Your task to perform on an android device: Open the web browser Image 0: 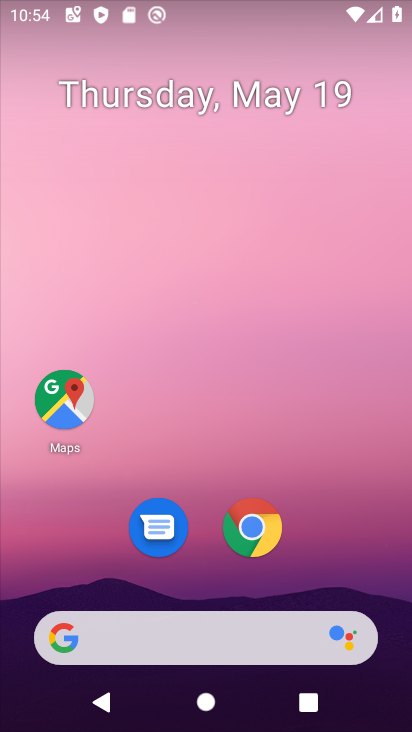
Step 0: drag from (212, 598) to (286, 95)
Your task to perform on an android device: Open the web browser Image 1: 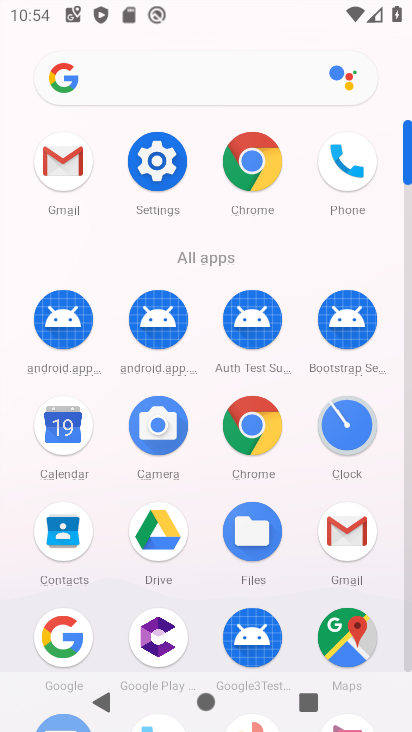
Step 1: click (262, 167)
Your task to perform on an android device: Open the web browser Image 2: 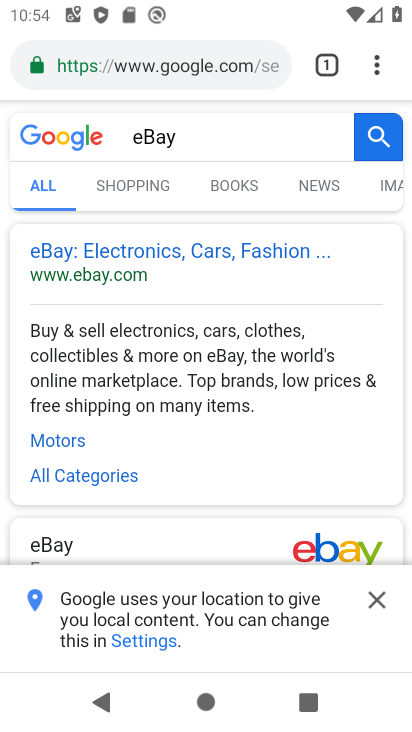
Step 2: task complete